Your task to perform on an android device: turn off priority inbox in the gmail app Image 0: 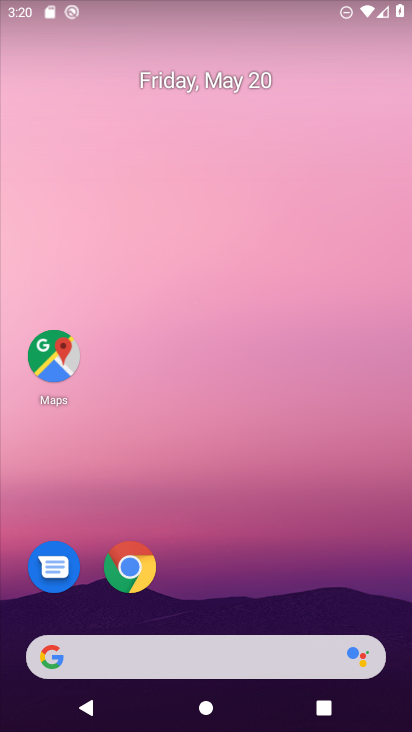
Step 0: drag from (248, 721) to (238, 136)
Your task to perform on an android device: turn off priority inbox in the gmail app Image 1: 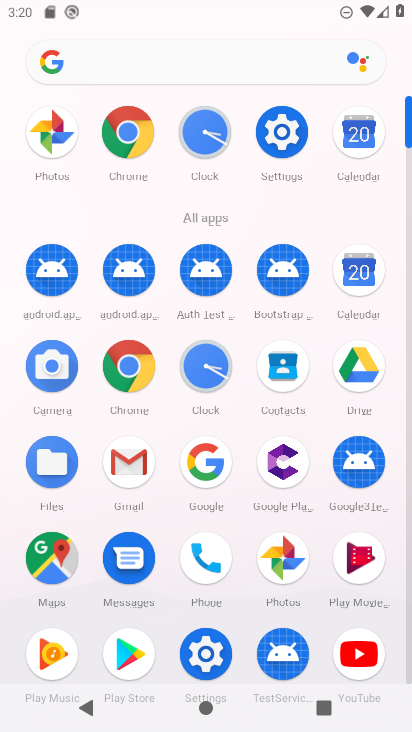
Step 1: click (131, 459)
Your task to perform on an android device: turn off priority inbox in the gmail app Image 2: 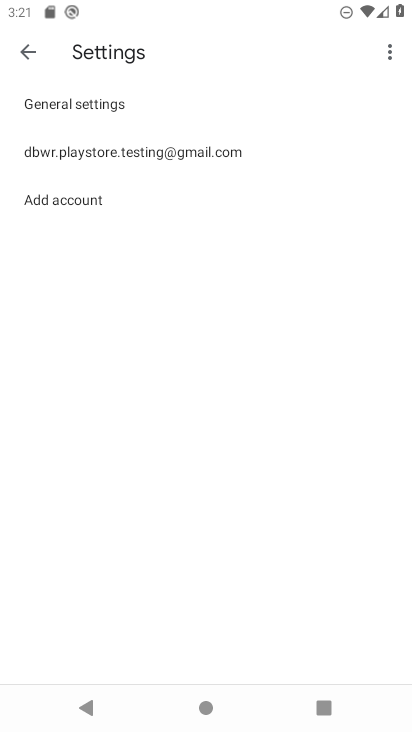
Step 2: click (158, 150)
Your task to perform on an android device: turn off priority inbox in the gmail app Image 3: 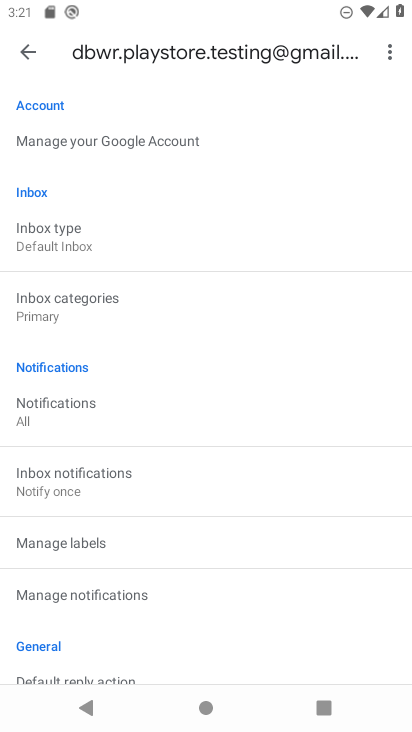
Step 3: click (63, 239)
Your task to perform on an android device: turn off priority inbox in the gmail app Image 4: 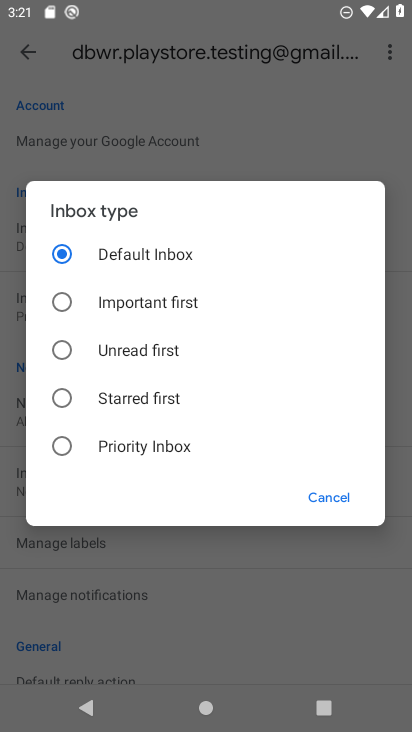
Step 4: click (335, 499)
Your task to perform on an android device: turn off priority inbox in the gmail app Image 5: 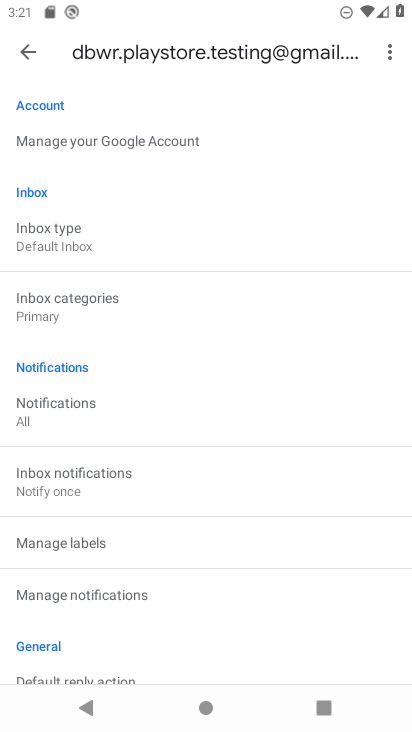
Step 5: task complete